Your task to perform on an android device: How much does a 3 bedroom apartment rent for in New York? Image 0: 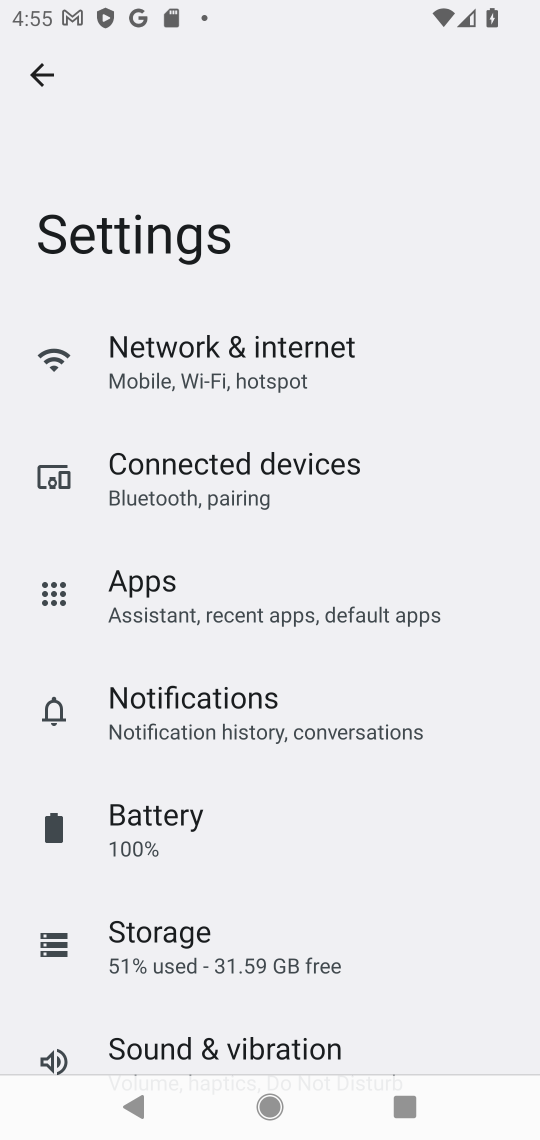
Step 0: press home button
Your task to perform on an android device: How much does a 3 bedroom apartment rent for in New York? Image 1: 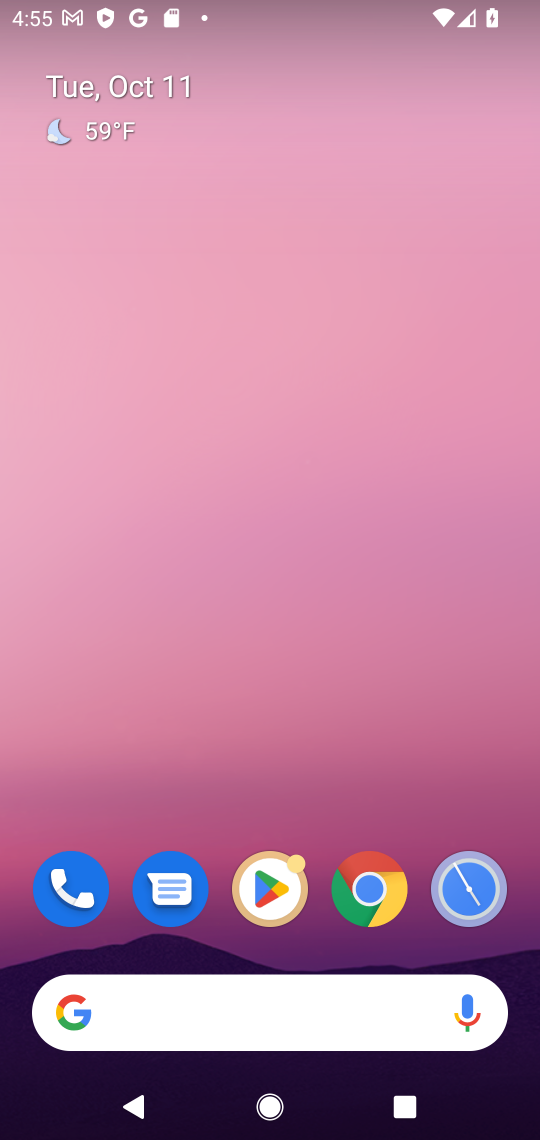
Step 1: drag from (231, 972) to (258, 395)
Your task to perform on an android device: How much does a 3 bedroom apartment rent for in New York? Image 2: 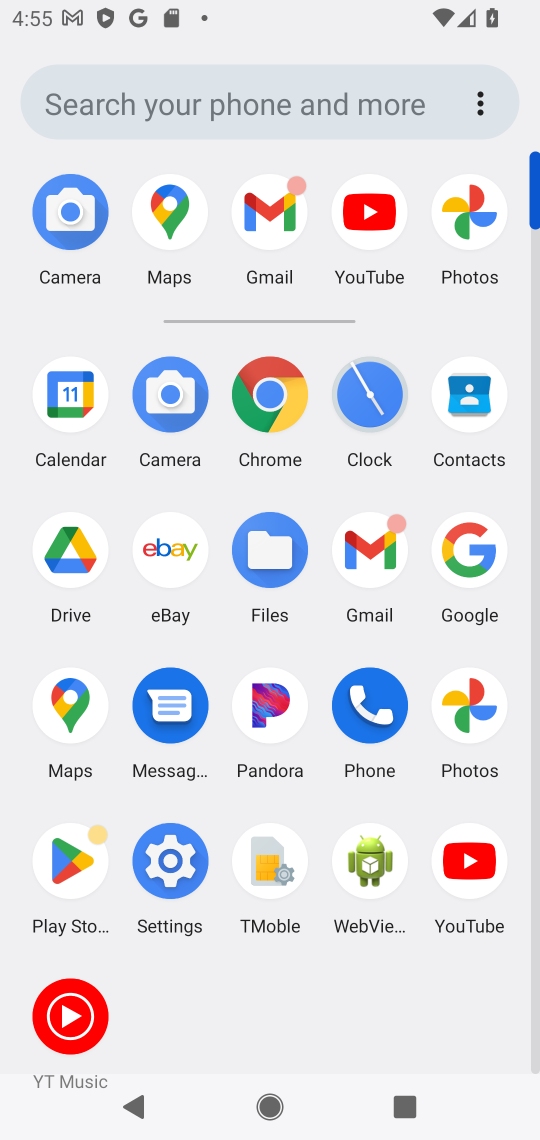
Step 2: click (469, 535)
Your task to perform on an android device: How much does a 3 bedroom apartment rent for in New York? Image 3: 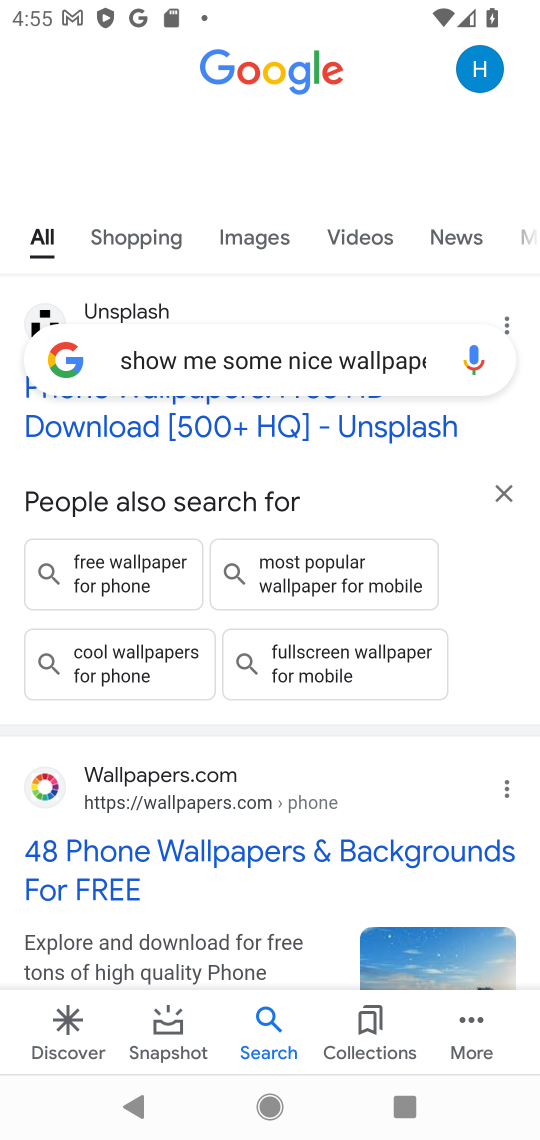
Step 3: click (225, 366)
Your task to perform on an android device: How much does a 3 bedroom apartment rent for in New York? Image 4: 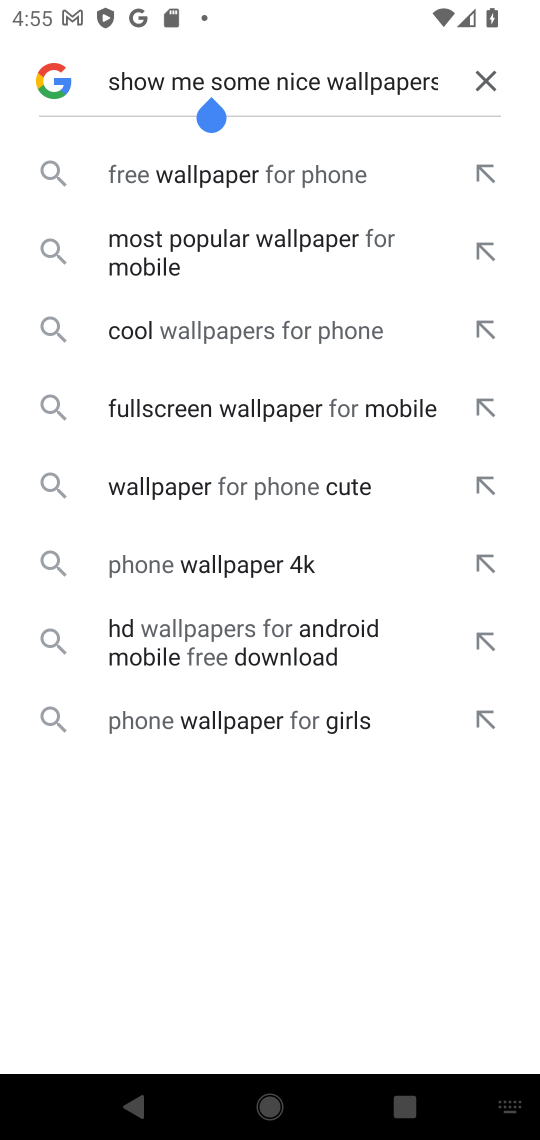
Step 4: click (491, 67)
Your task to perform on an android device: How much does a 3 bedroom apartment rent for in New York? Image 5: 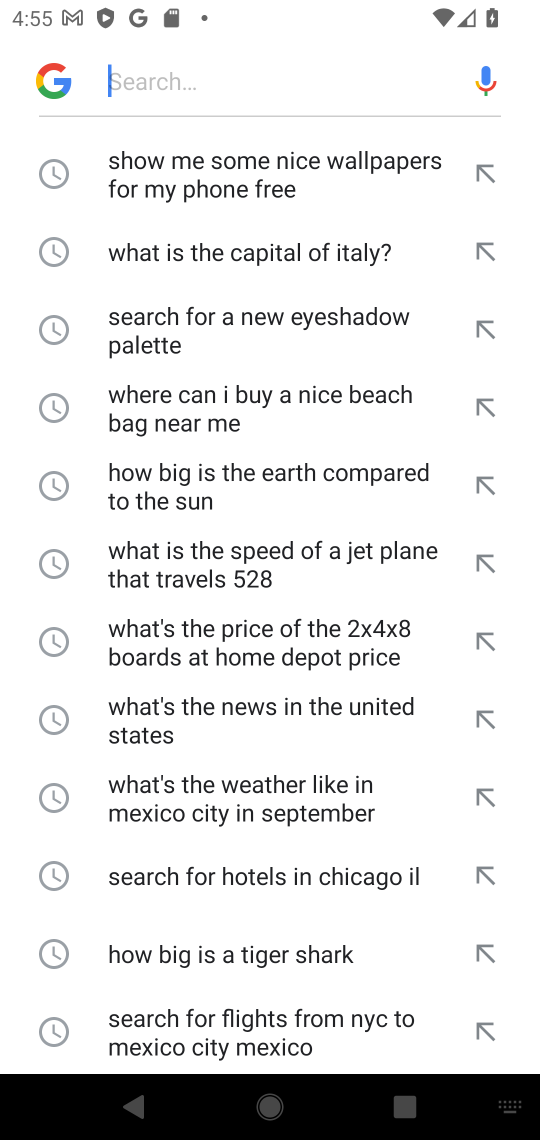
Step 5: click (259, 82)
Your task to perform on an android device: How much does a 3 bedroom apartment rent for in New York? Image 6: 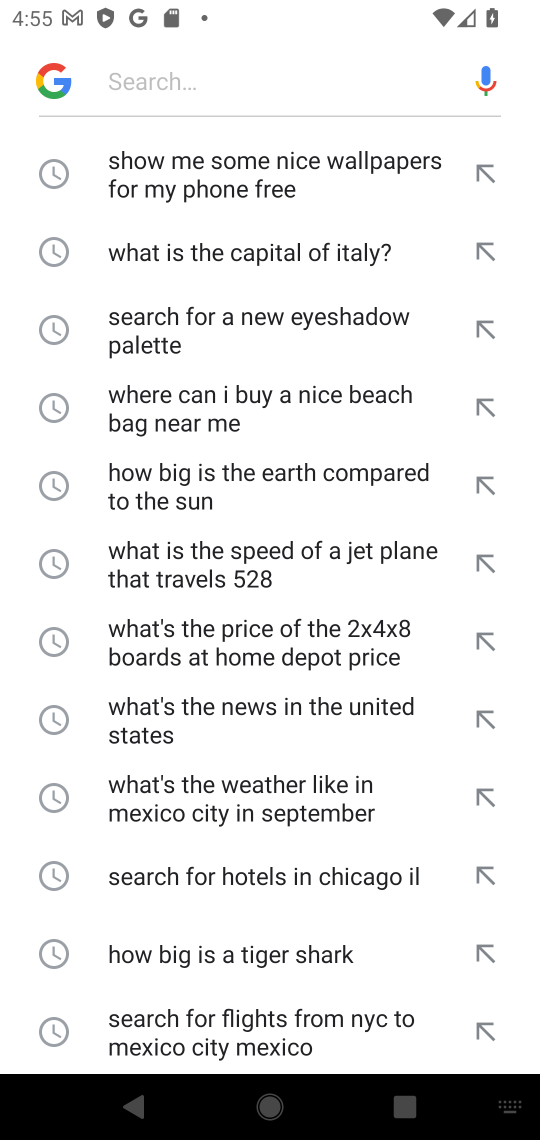
Step 6: type "How much does a 3 bedroom apartment rent for in New York "
Your task to perform on an android device: How much does a 3 bedroom apartment rent for in New York? Image 7: 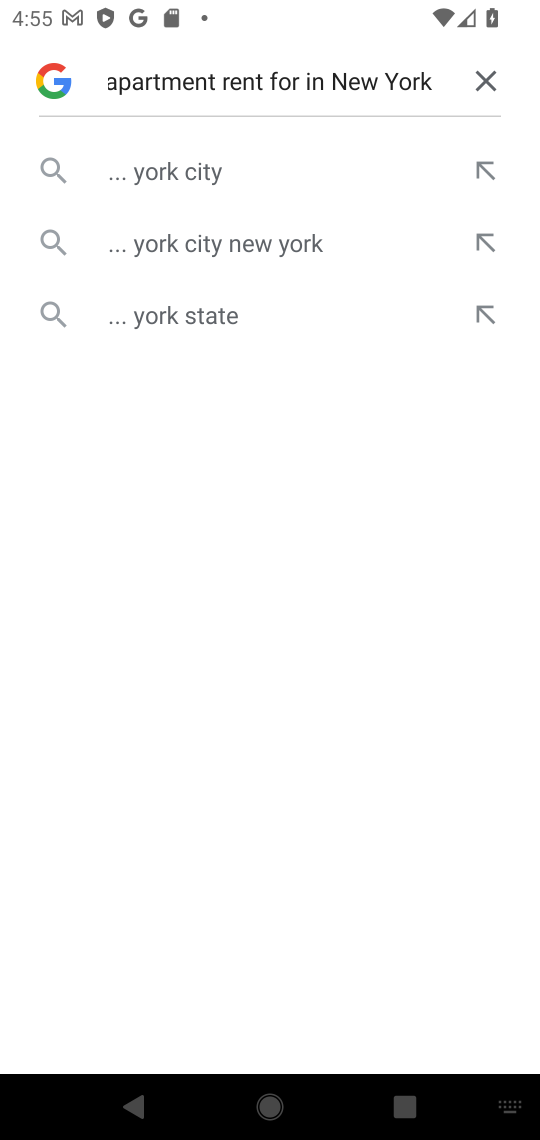
Step 7: click (189, 240)
Your task to perform on an android device: How much does a 3 bedroom apartment rent for in New York? Image 8: 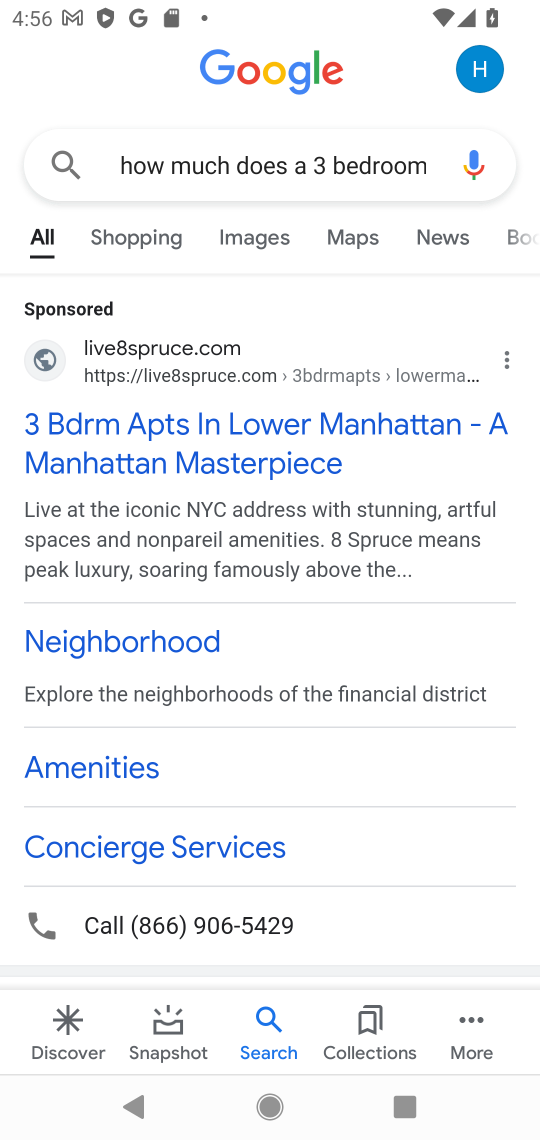
Step 8: click (271, 420)
Your task to perform on an android device: How much does a 3 bedroom apartment rent for in New York? Image 9: 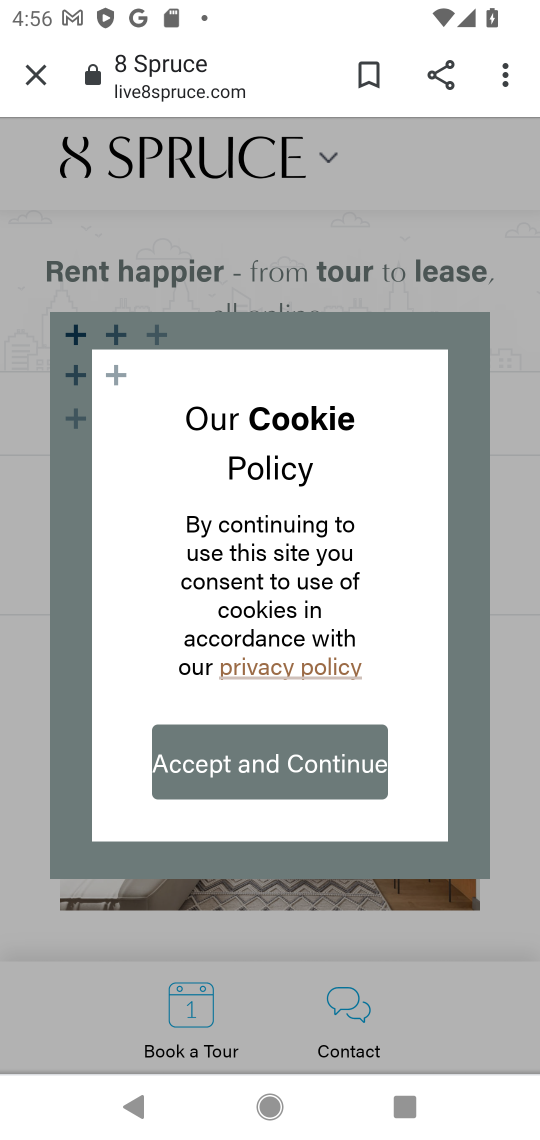
Step 9: task complete